Your task to perform on an android device: turn on improve location accuracy Image 0: 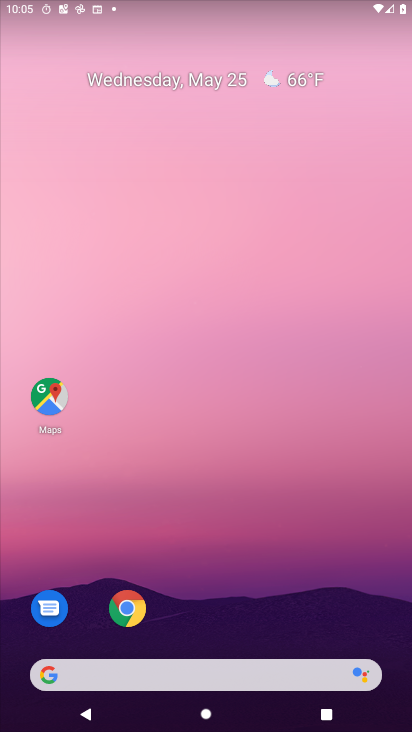
Step 0: drag from (224, 714) to (209, 180)
Your task to perform on an android device: turn on improve location accuracy Image 1: 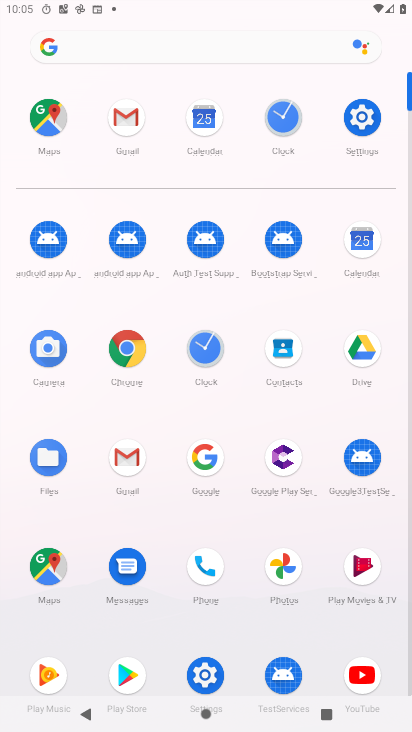
Step 1: click (363, 98)
Your task to perform on an android device: turn on improve location accuracy Image 2: 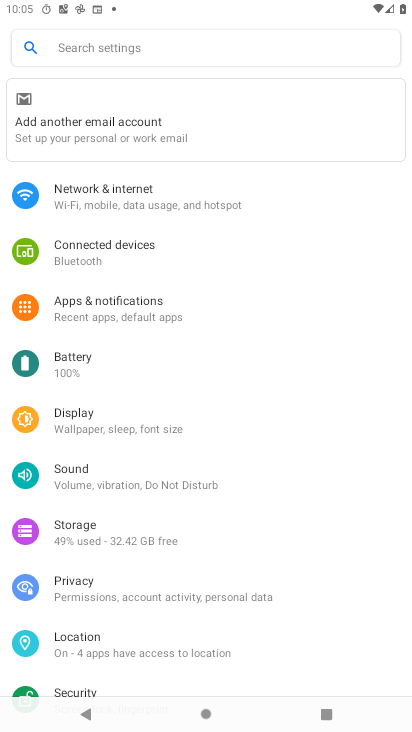
Step 2: click (102, 636)
Your task to perform on an android device: turn on improve location accuracy Image 3: 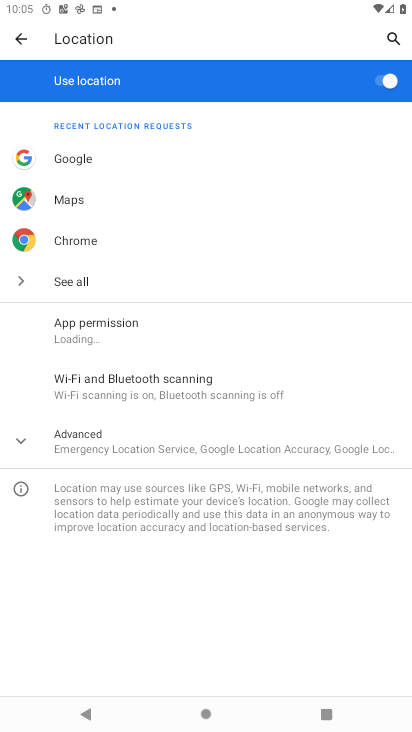
Step 3: click (94, 443)
Your task to perform on an android device: turn on improve location accuracy Image 4: 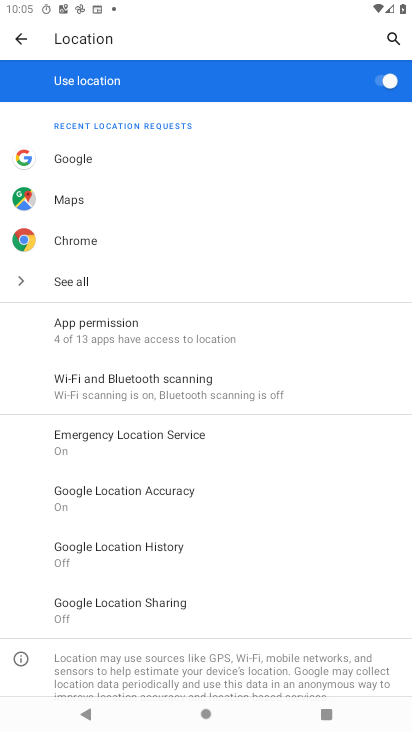
Step 4: click (120, 490)
Your task to perform on an android device: turn on improve location accuracy Image 5: 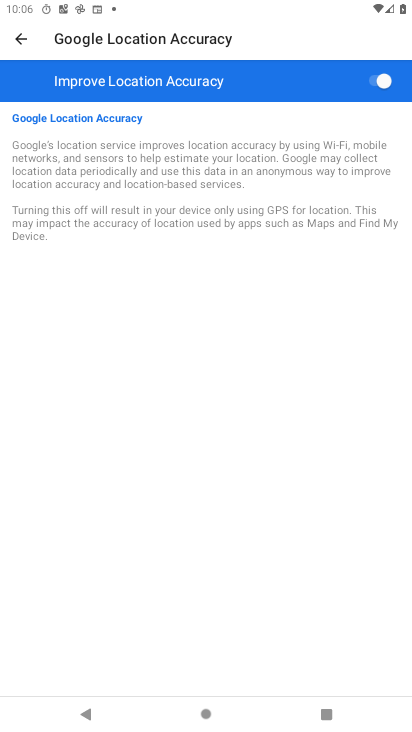
Step 5: task complete